Your task to perform on an android device: open device folders in google photos Image 0: 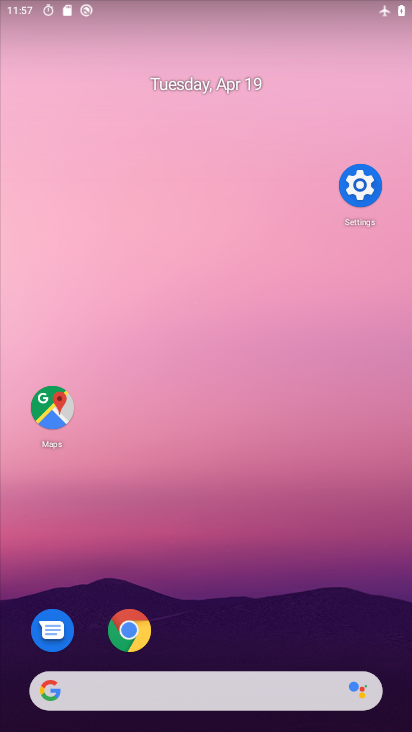
Step 0: drag from (214, 648) to (264, 295)
Your task to perform on an android device: open device folders in google photos Image 1: 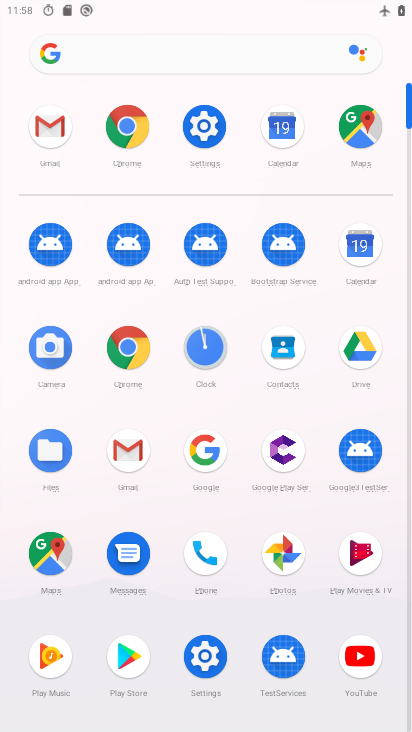
Step 1: click (288, 556)
Your task to perform on an android device: open device folders in google photos Image 2: 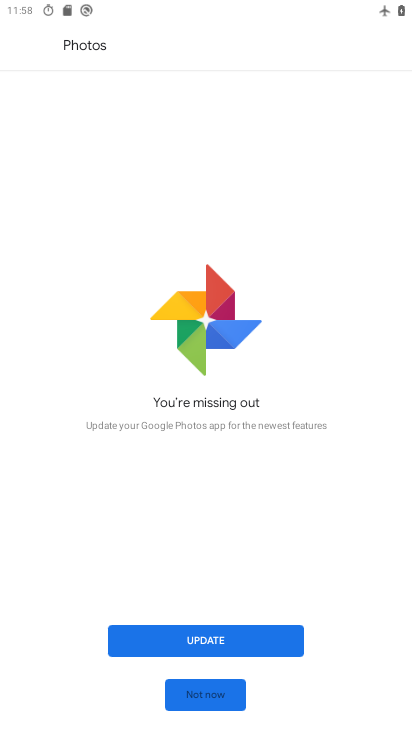
Step 2: click (234, 691)
Your task to perform on an android device: open device folders in google photos Image 3: 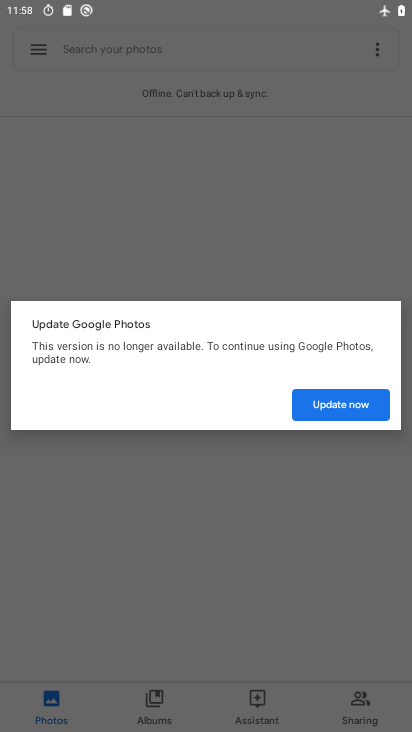
Step 3: task complete